Your task to perform on an android device: change notifications settings Image 0: 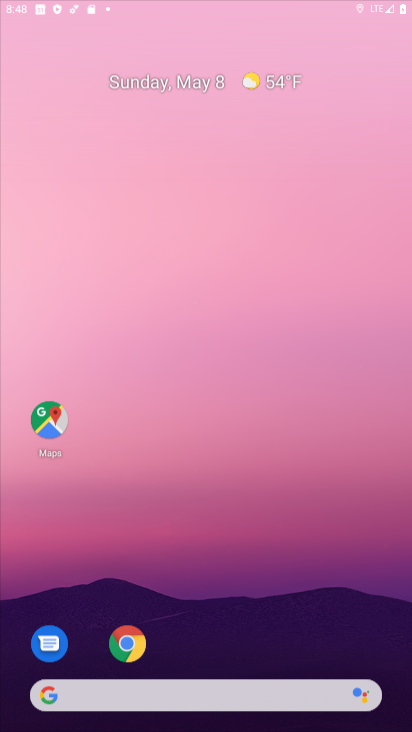
Step 0: click (277, 61)
Your task to perform on an android device: change notifications settings Image 1: 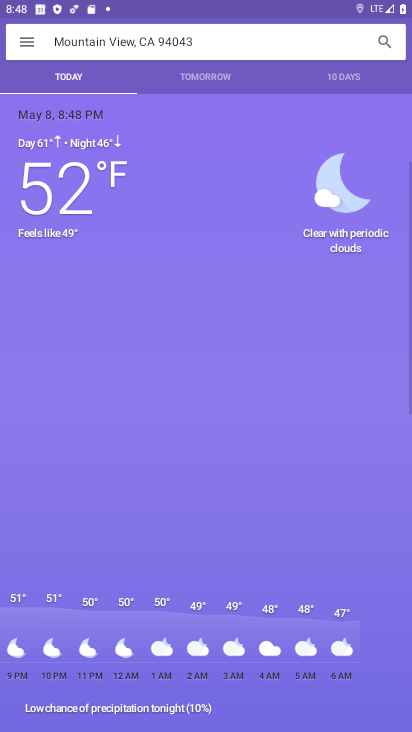
Step 1: press home button
Your task to perform on an android device: change notifications settings Image 2: 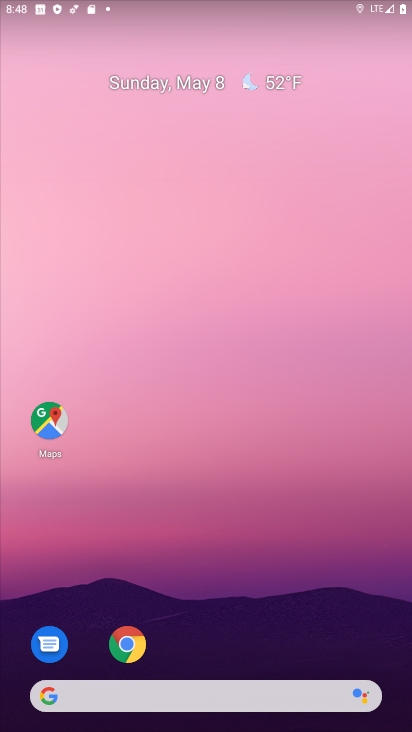
Step 2: drag from (198, 627) to (259, 153)
Your task to perform on an android device: change notifications settings Image 3: 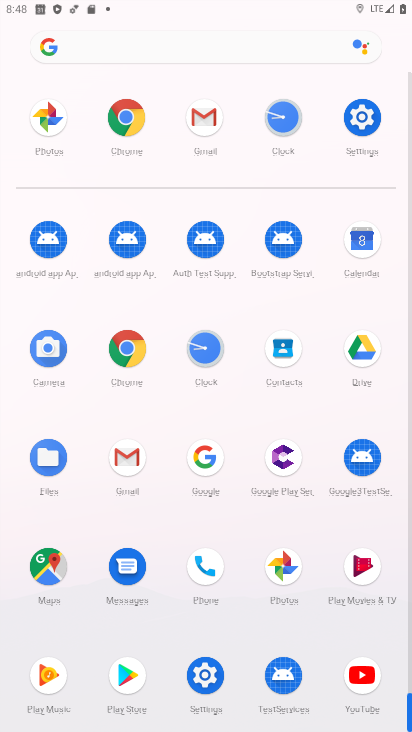
Step 3: click (205, 678)
Your task to perform on an android device: change notifications settings Image 4: 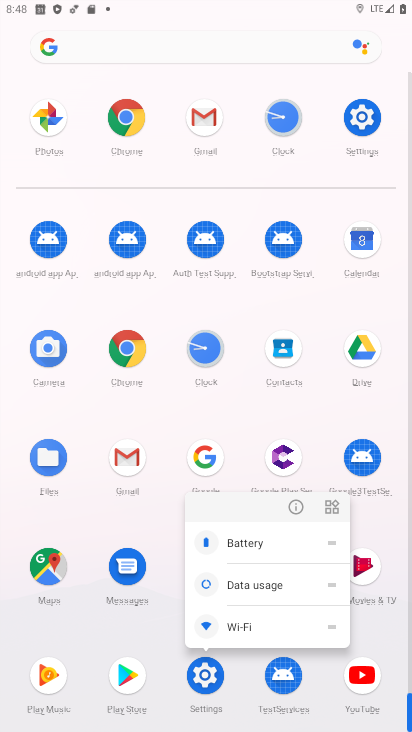
Step 4: click (296, 504)
Your task to perform on an android device: change notifications settings Image 5: 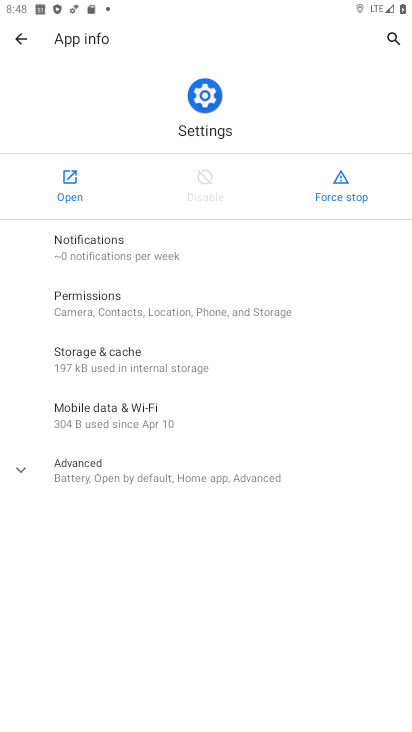
Step 5: click (64, 174)
Your task to perform on an android device: change notifications settings Image 6: 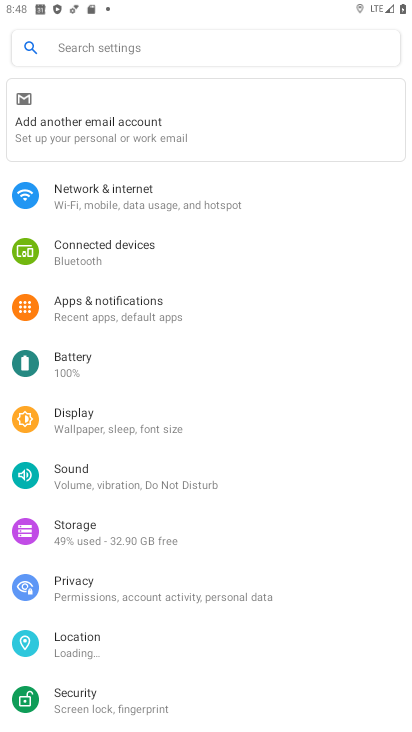
Step 6: click (172, 314)
Your task to perform on an android device: change notifications settings Image 7: 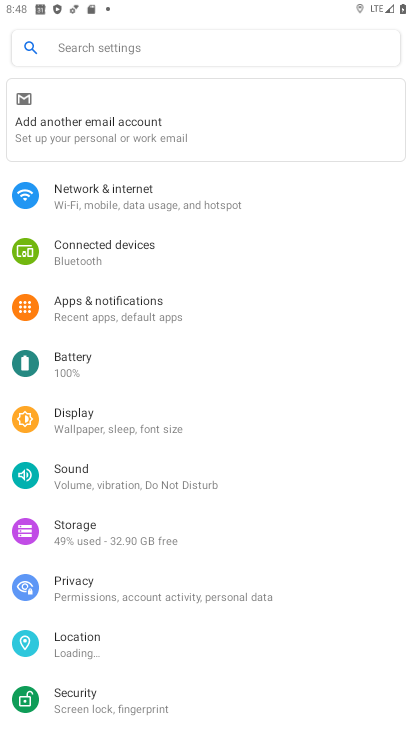
Step 7: click (172, 314)
Your task to perform on an android device: change notifications settings Image 8: 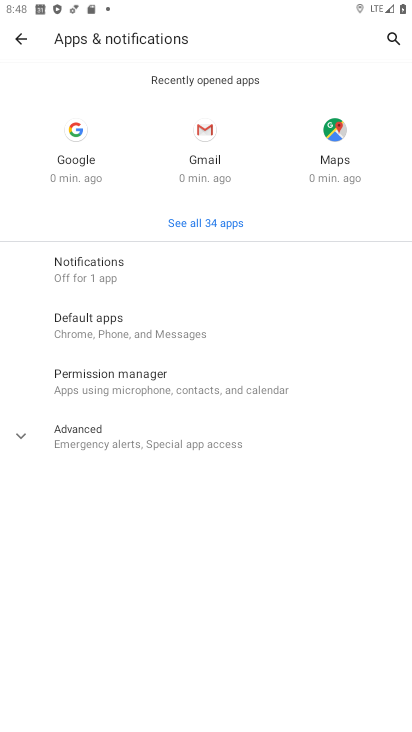
Step 8: click (166, 267)
Your task to perform on an android device: change notifications settings Image 9: 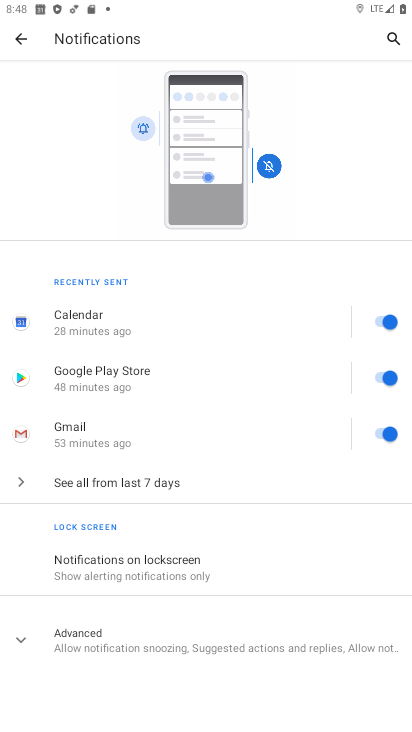
Step 9: drag from (235, 586) to (264, 353)
Your task to perform on an android device: change notifications settings Image 10: 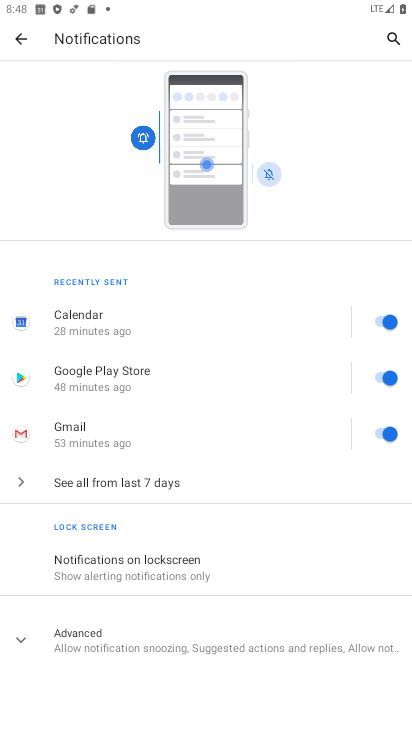
Step 10: click (163, 642)
Your task to perform on an android device: change notifications settings Image 11: 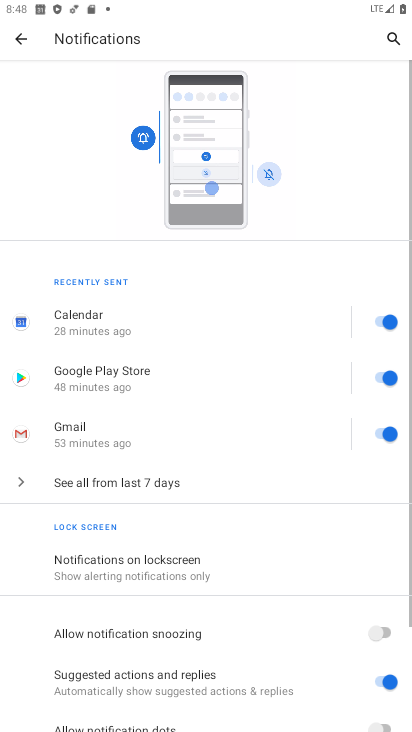
Step 11: drag from (258, 672) to (293, 302)
Your task to perform on an android device: change notifications settings Image 12: 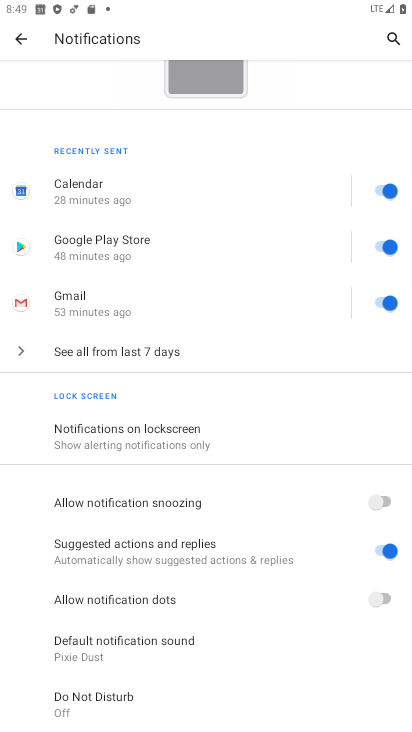
Step 12: click (378, 296)
Your task to perform on an android device: change notifications settings Image 13: 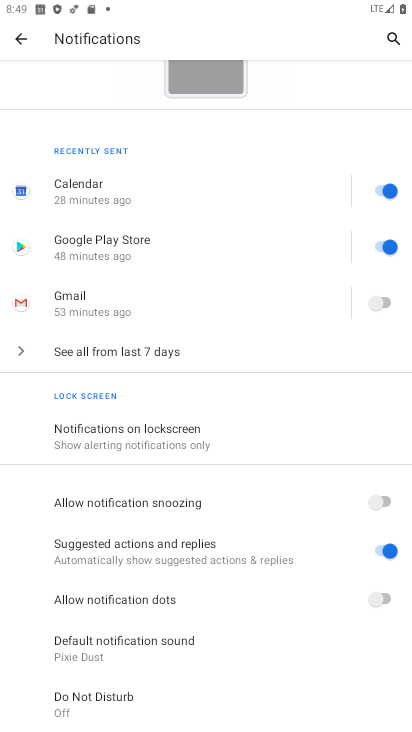
Step 13: task complete